Your task to perform on an android device: Open notification settings Image 0: 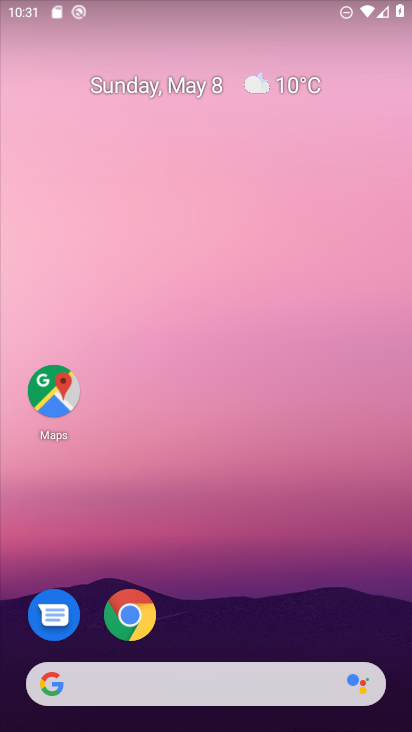
Step 0: drag from (285, 621) to (287, 170)
Your task to perform on an android device: Open notification settings Image 1: 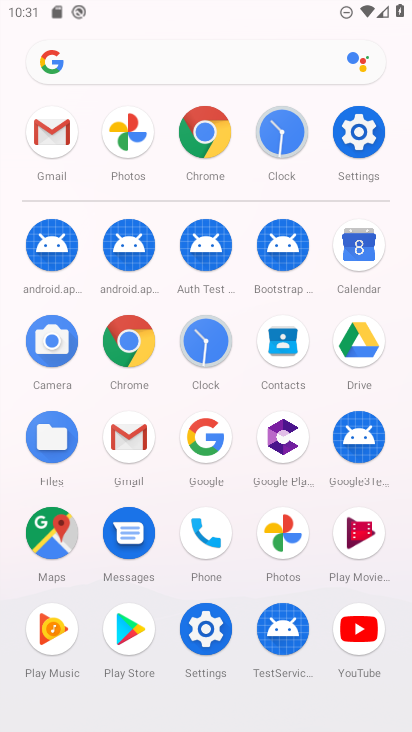
Step 1: click (368, 130)
Your task to perform on an android device: Open notification settings Image 2: 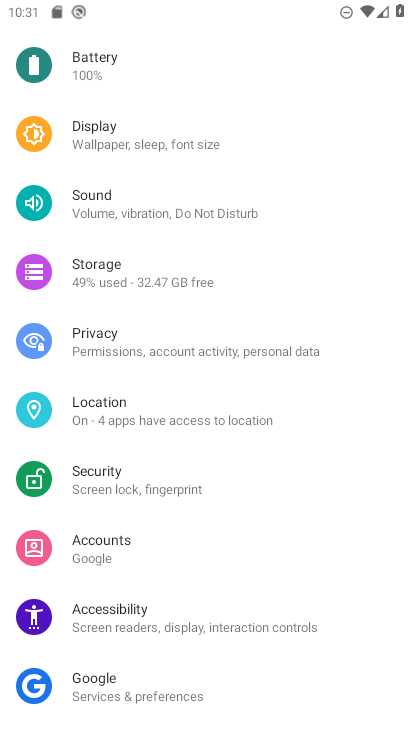
Step 2: drag from (244, 125) to (256, 667)
Your task to perform on an android device: Open notification settings Image 3: 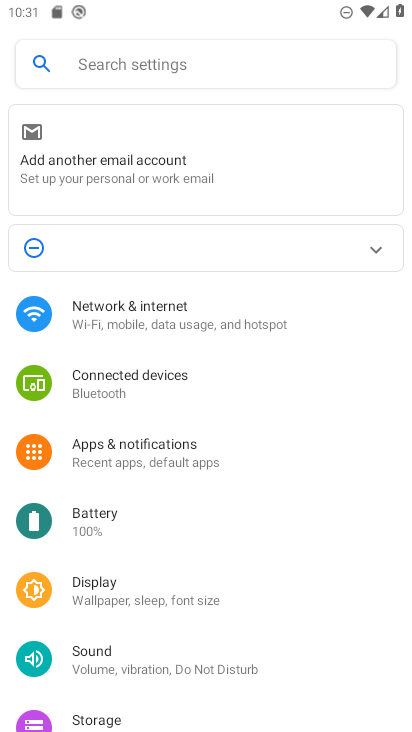
Step 3: click (161, 447)
Your task to perform on an android device: Open notification settings Image 4: 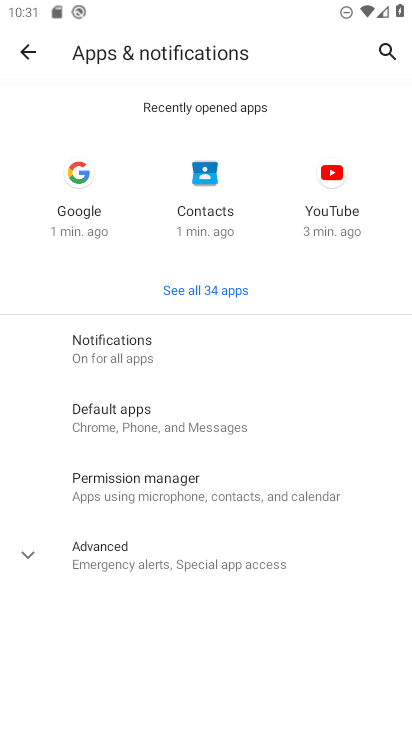
Step 4: click (178, 348)
Your task to perform on an android device: Open notification settings Image 5: 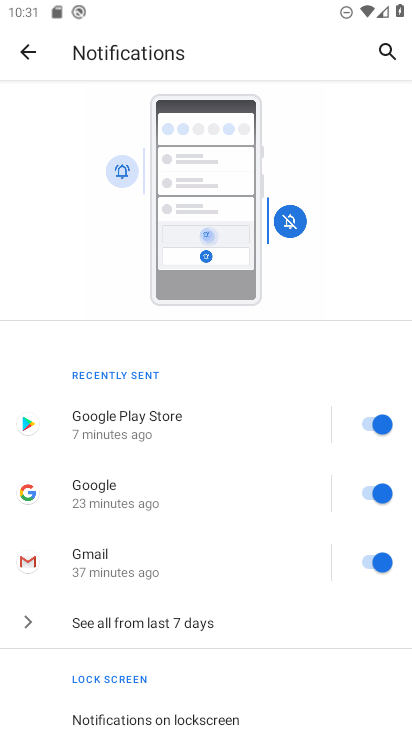
Step 5: task complete